Your task to perform on an android device: What is the news today? Image 0: 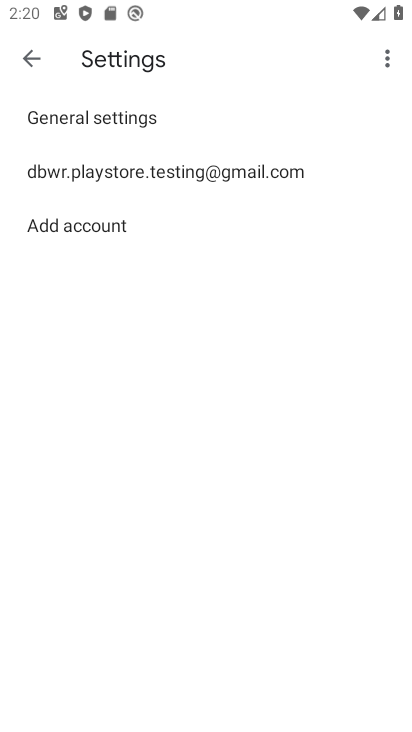
Step 0: press home button
Your task to perform on an android device: What is the news today? Image 1: 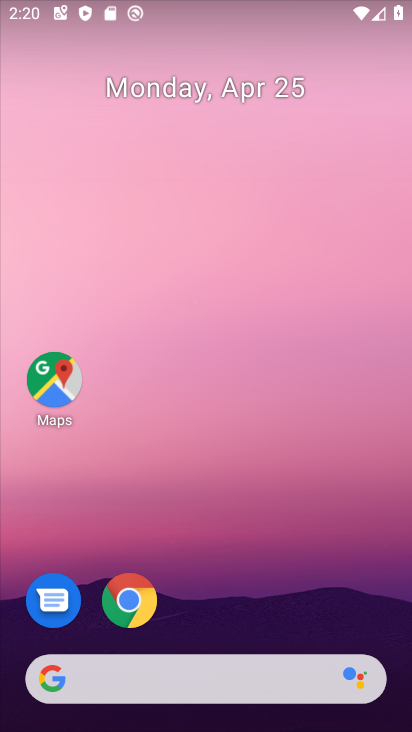
Step 1: drag from (341, 602) to (339, 200)
Your task to perform on an android device: What is the news today? Image 2: 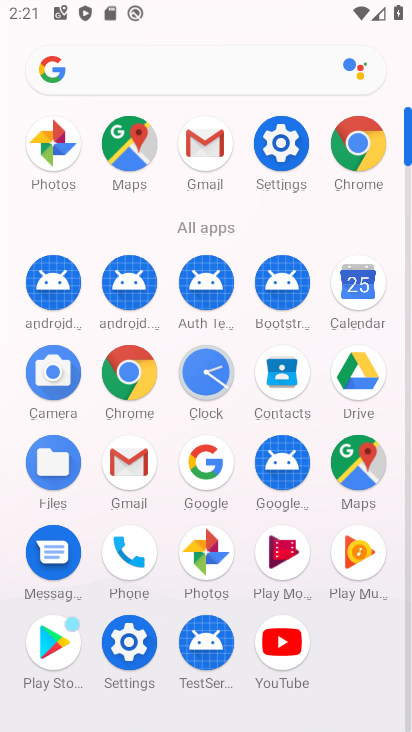
Step 2: click (117, 382)
Your task to perform on an android device: What is the news today? Image 3: 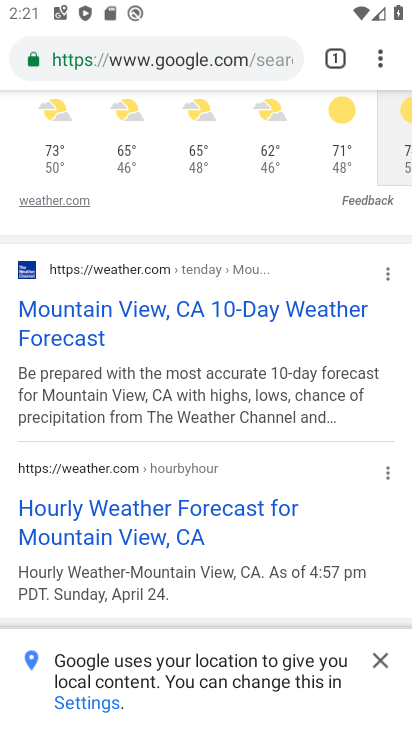
Step 3: drag from (267, 269) to (305, 500)
Your task to perform on an android device: What is the news today? Image 4: 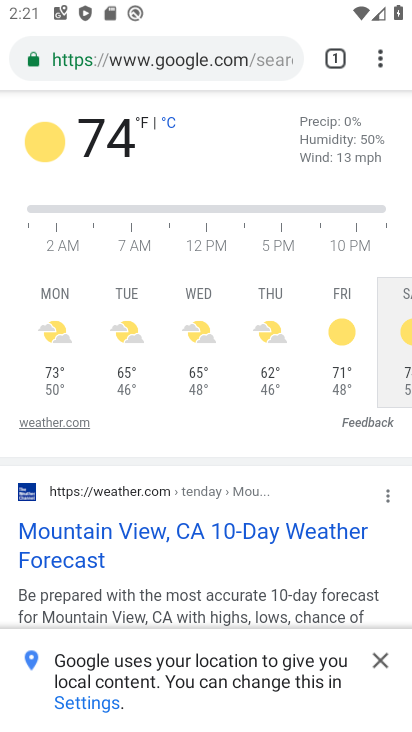
Step 4: click (183, 56)
Your task to perform on an android device: What is the news today? Image 5: 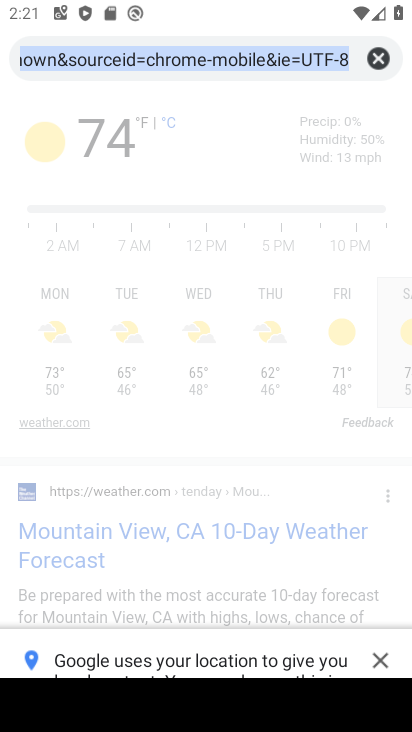
Step 5: click (383, 56)
Your task to perform on an android device: What is the news today? Image 6: 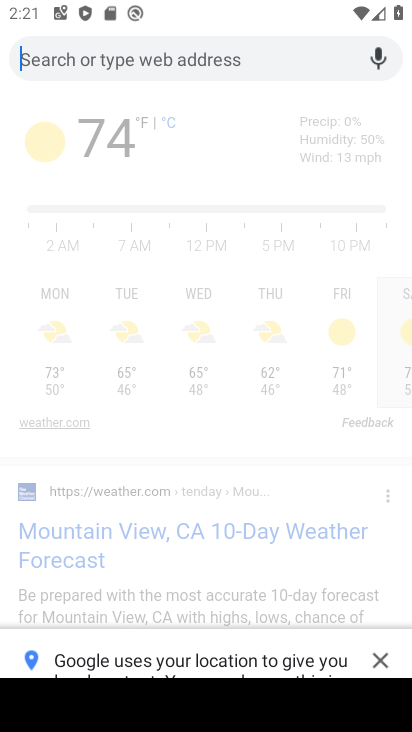
Step 6: type "what is the news today"
Your task to perform on an android device: What is the news today? Image 7: 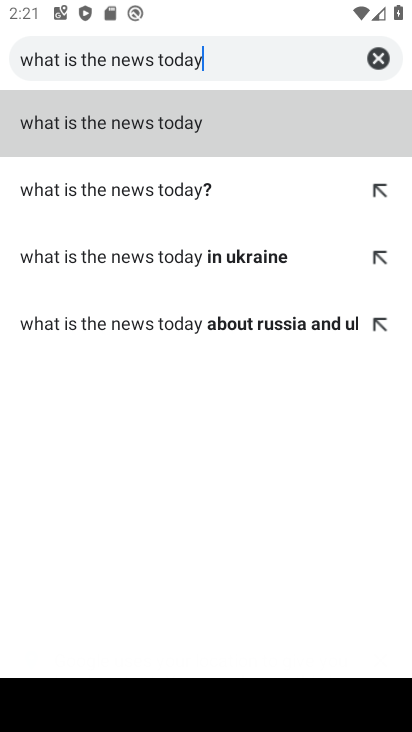
Step 7: click (96, 118)
Your task to perform on an android device: What is the news today? Image 8: 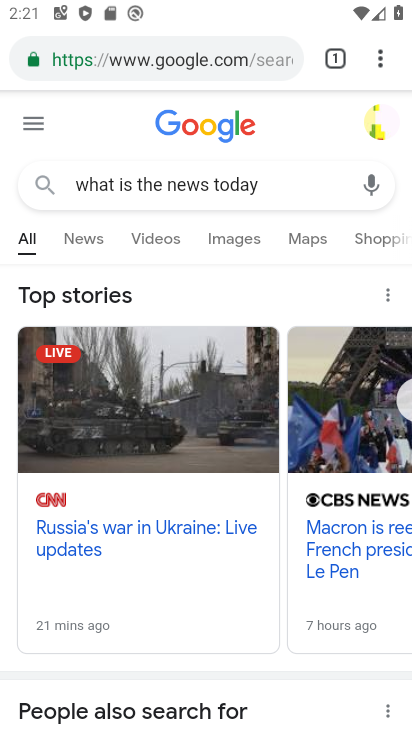
Step 8: task complete